Your task to perform on an android device: all mails in gmail Image 0: 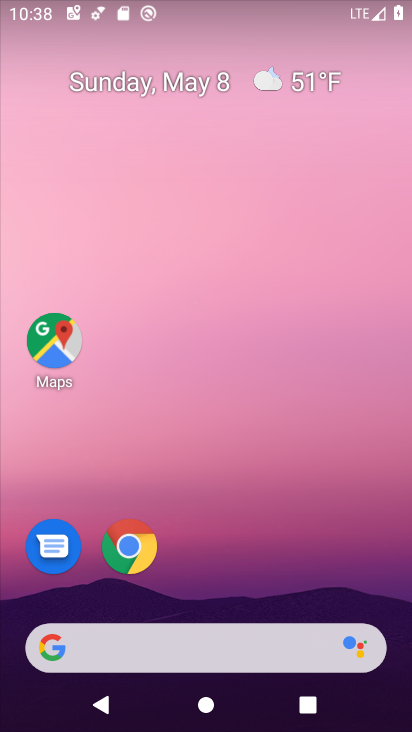
Step 0: drag from (394, 614) to (319, 19)
Your task to perform on an android device: all mails in gmail Image 1: 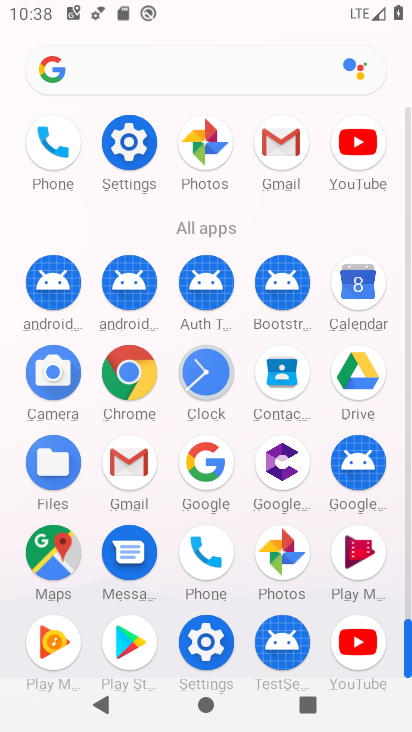
Step 1: click (123, 461)
Your task to perform on an android device: all mails in gmail Image 2: 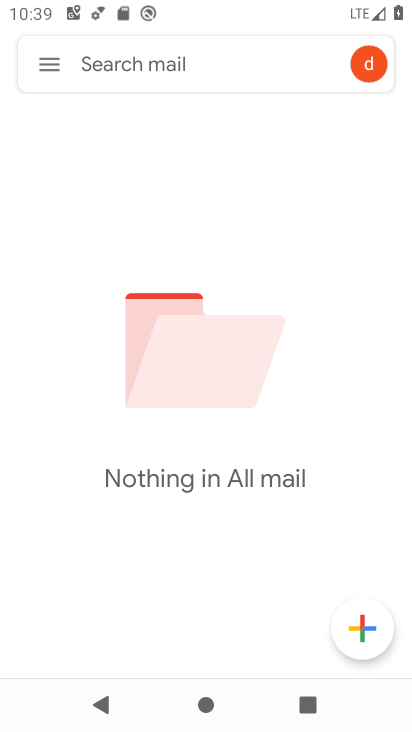
Step 2: click (42, 60)
Your task to perform on an android device: all mails in gmail Image 3: 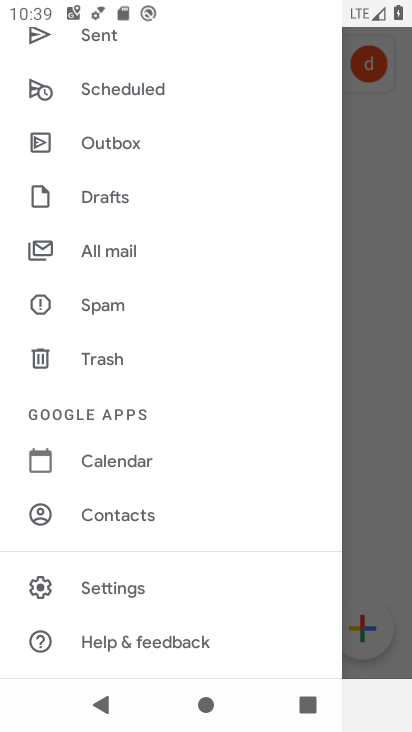
Step 3: click (120, 247)
Your task to perform on an android device: all mails in gmail Image 4: 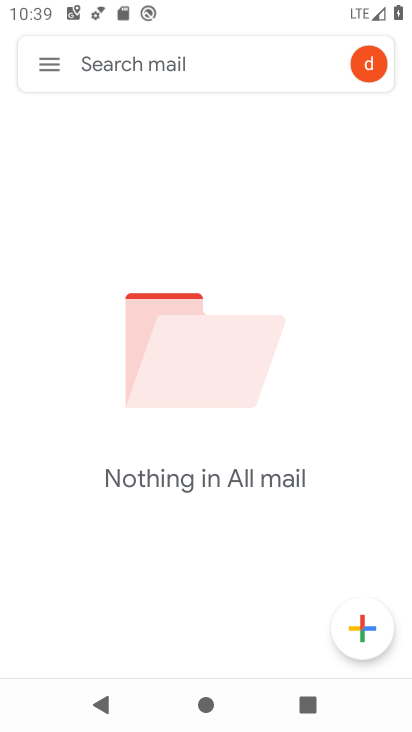
Step 4: task complete